Your task to perform on an android device: Open Maps and search for coffee Image 0: 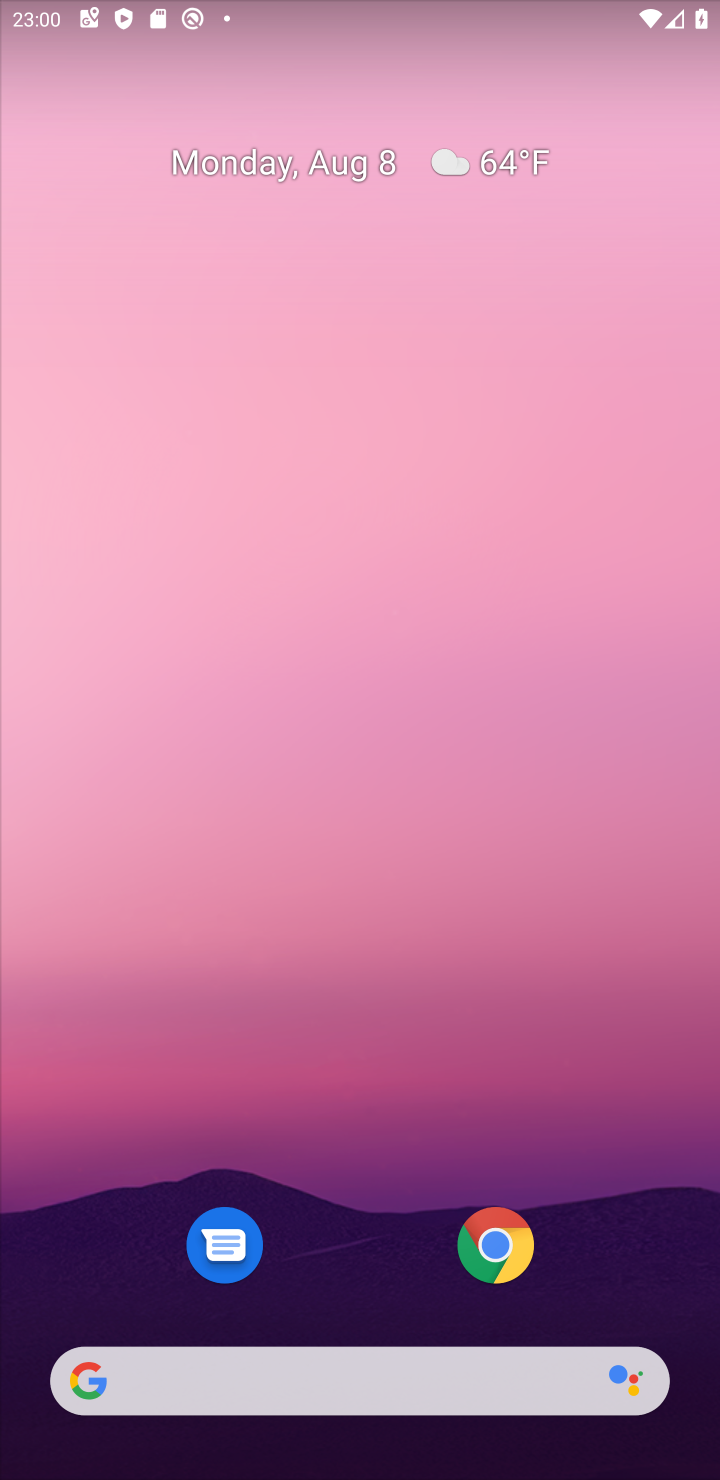
Step 0: drag from (365, 1108) to (325, 25)
Your task to perform on an android device: Open Maps and search for coffee Image 1: 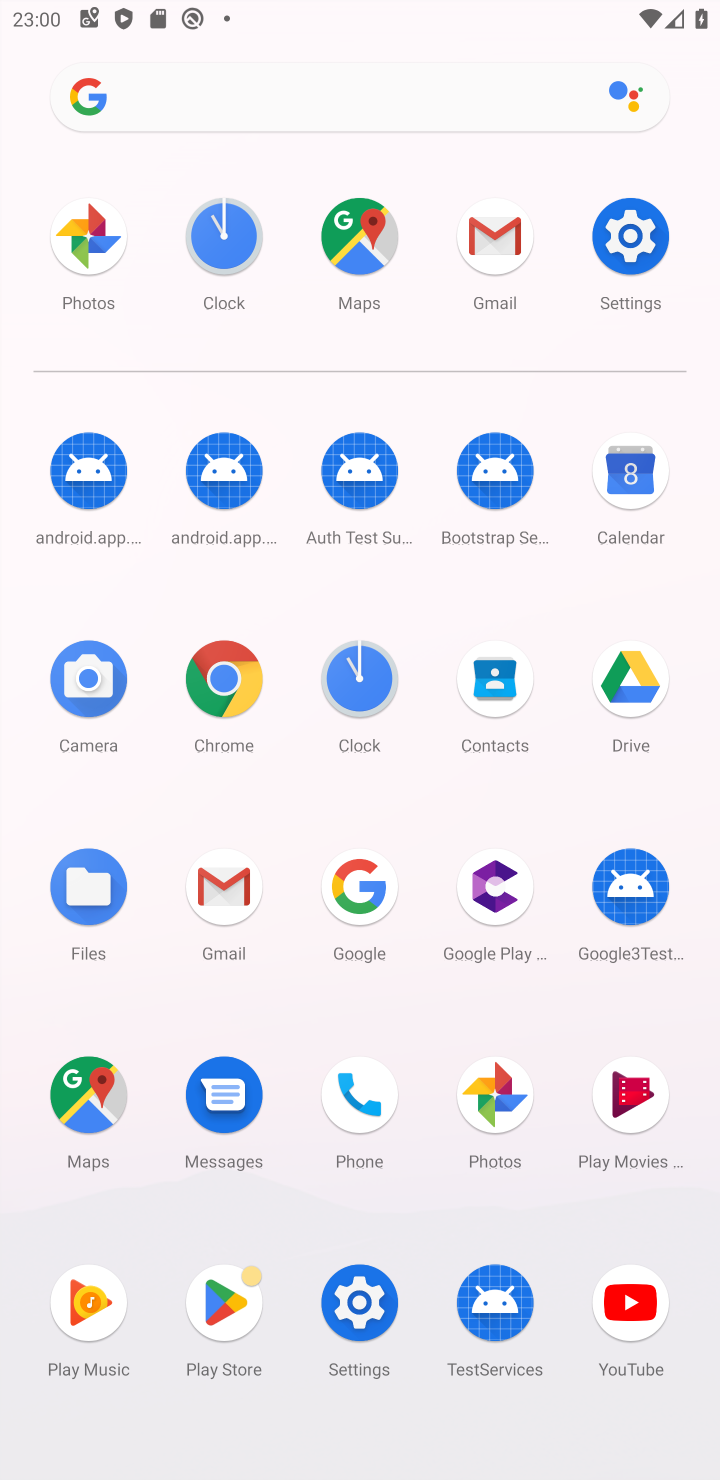
Step 1: click (366, 242)
Your task to perform on an android device: Open Maps and search for coffee Image 2: 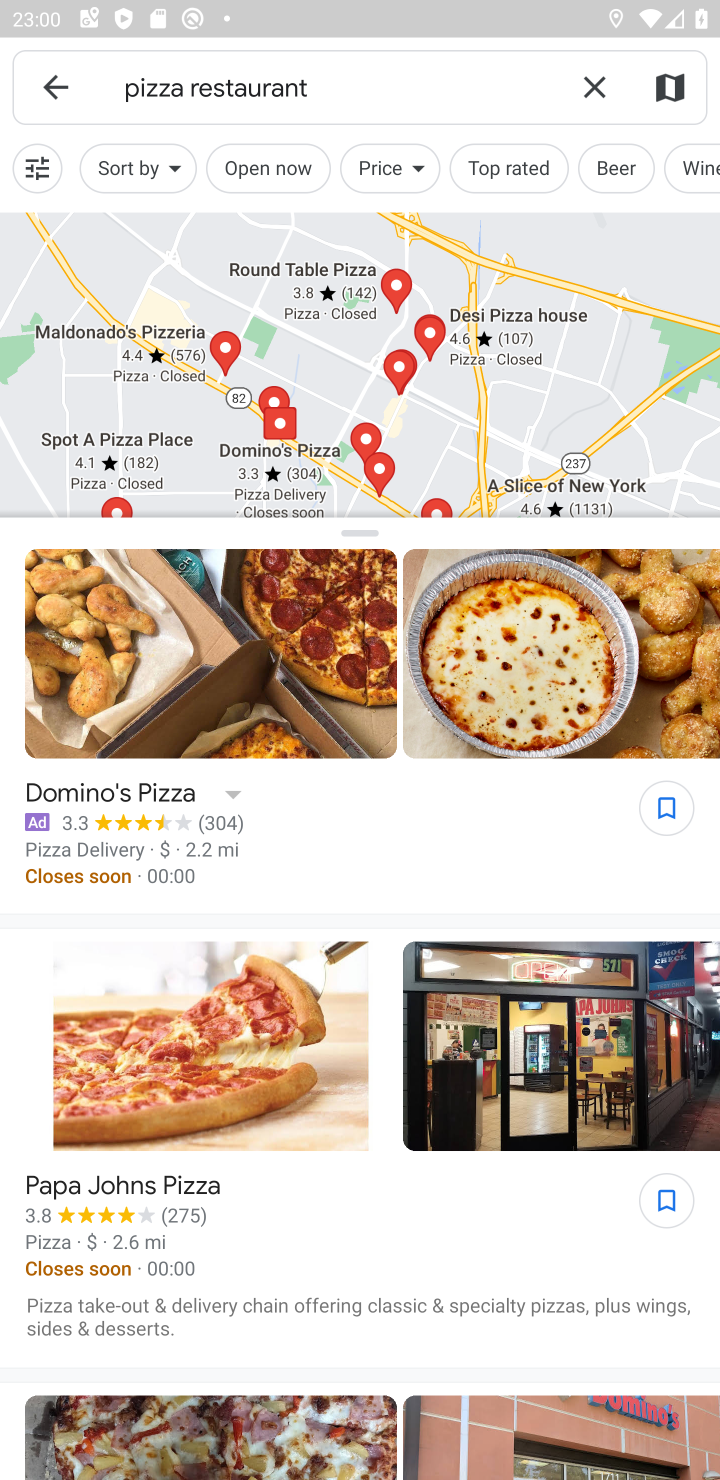
Step 2: click (593, 83)
Your task to perform on an android device: Open Maps and search for coffee Image 3: 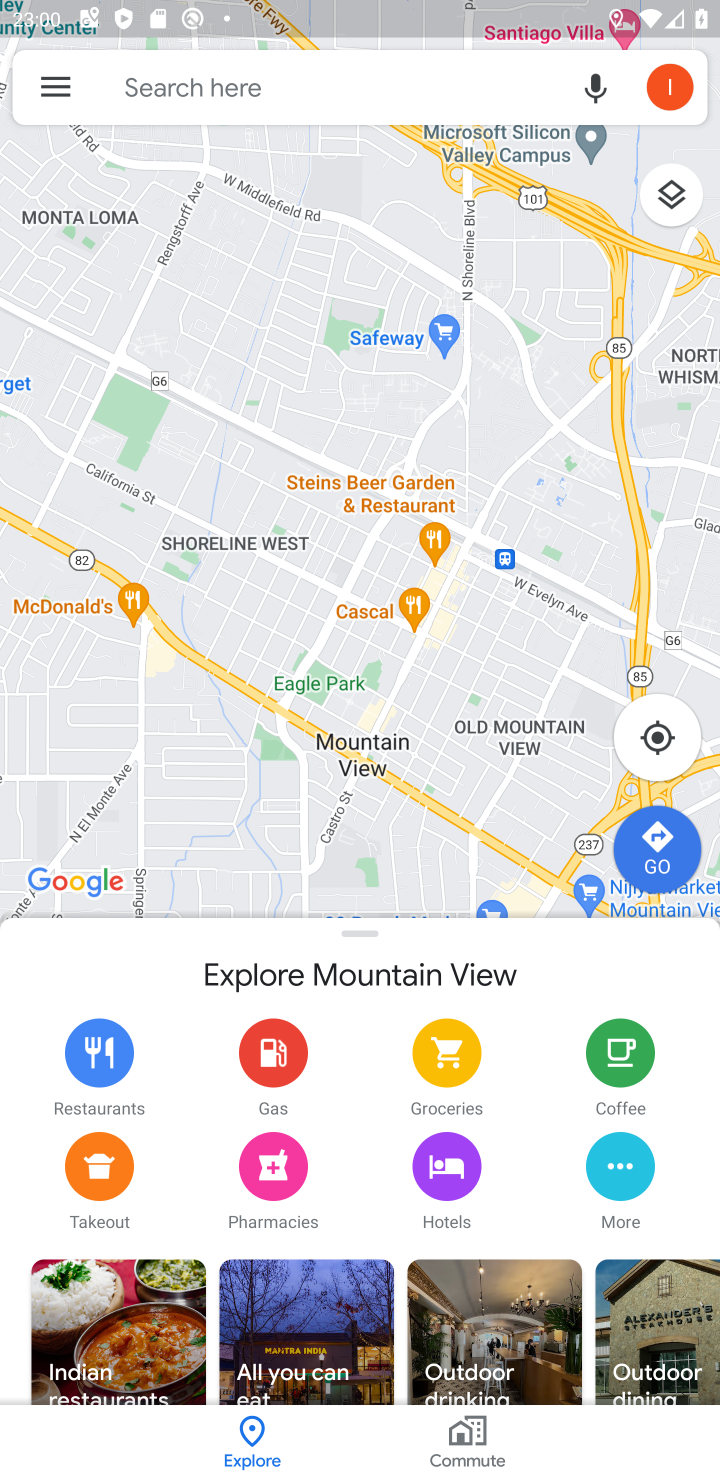
Step 3: click (294, 76)
Your task to perform on an android device: Open Maps and search for coffee Image 4: 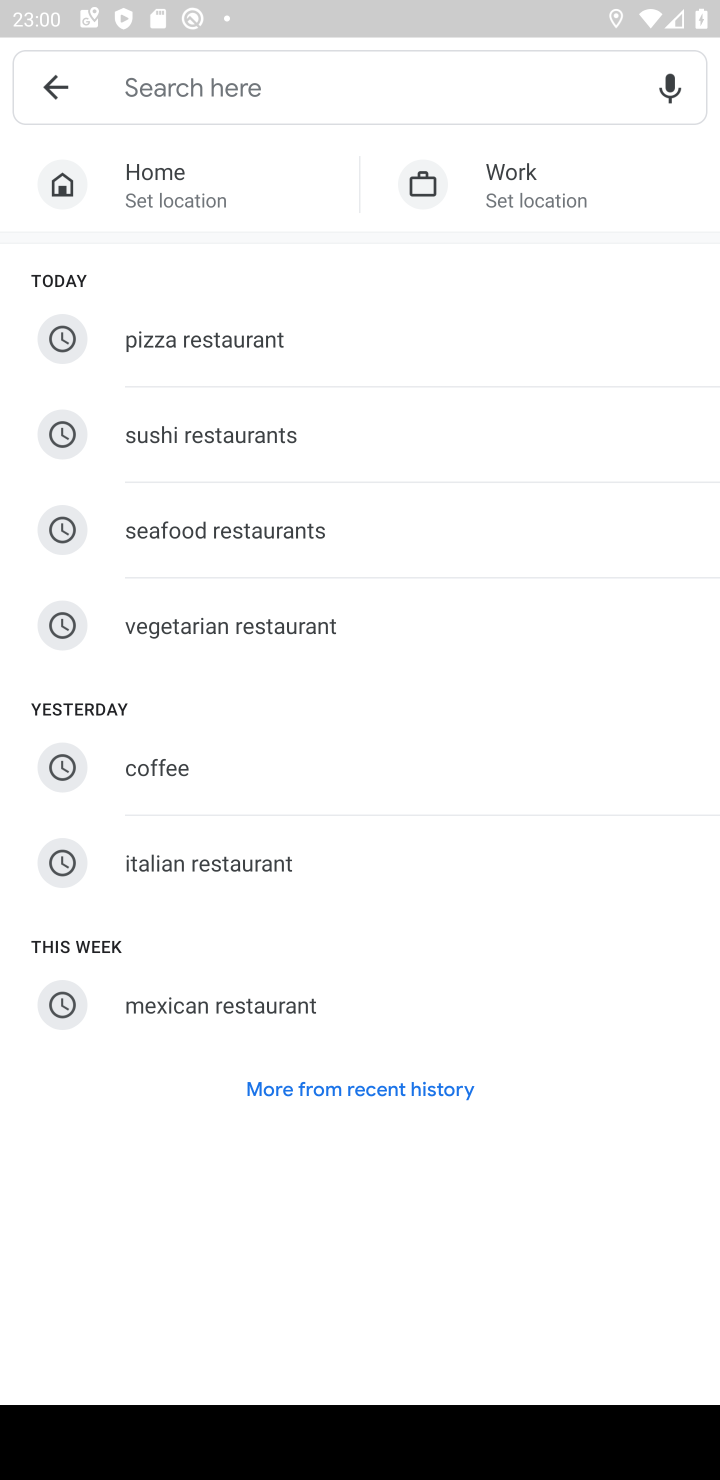
Step 4: click (164, 756)
Your task to perform on an android device: Open Maps and search for coffee Image 5: 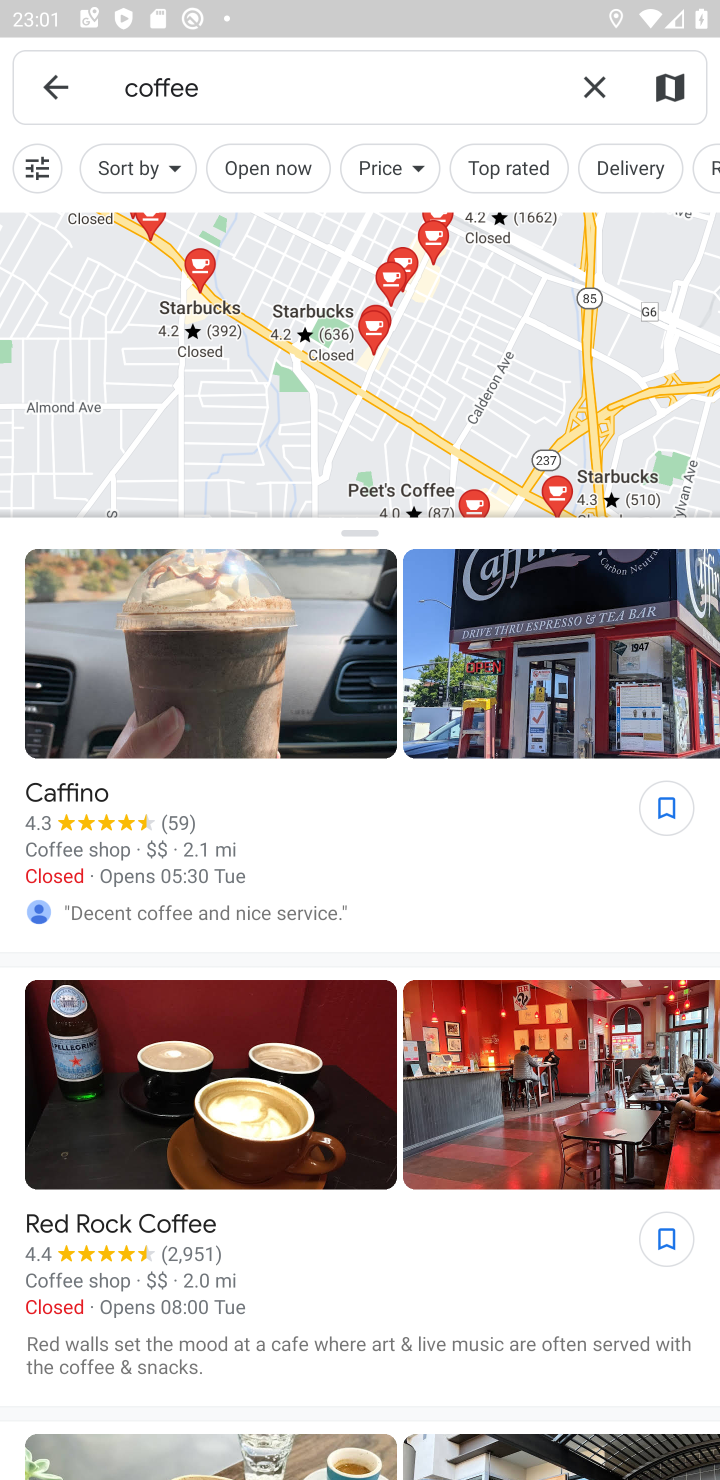
Step 5: task complete